Your task to perform on an android device: toggle data saver in the chrome app Image 0: 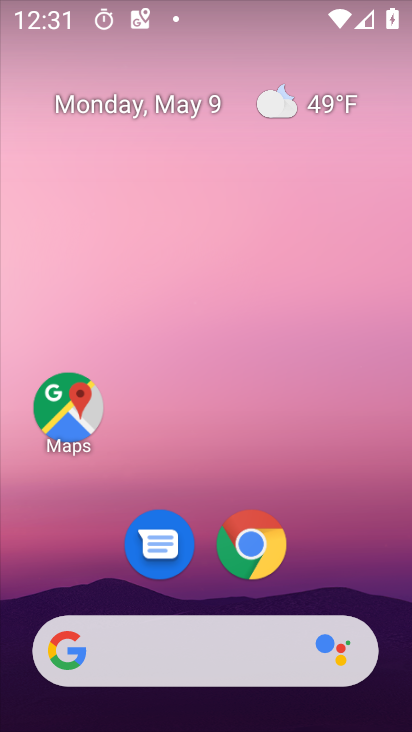
Step 0: drag from (324, 532) to (339, 4)
Your task to perform on an android device: toggle data saver in the chrome app Image 1: 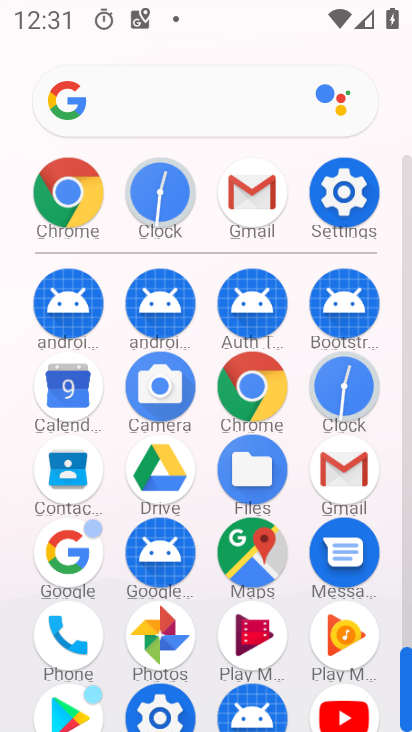
Step 1: click (261, 394)
Your task to perform on an android device: toggle data saver in the chrome app Image 2: 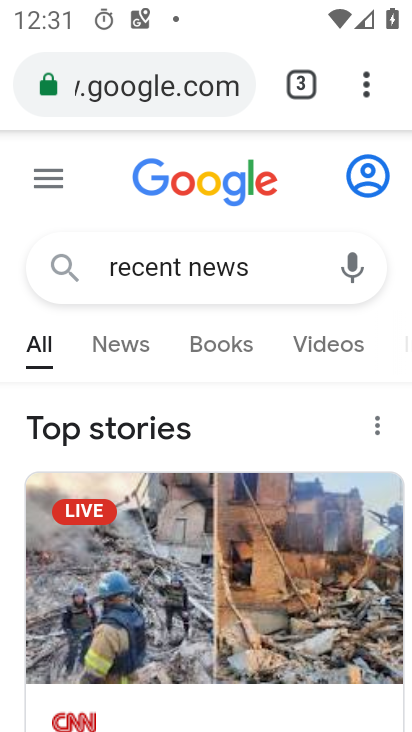
Step 2: click (364, 82)
Your task to perform on an android device: toggle data saver in the chrome app Image 3: 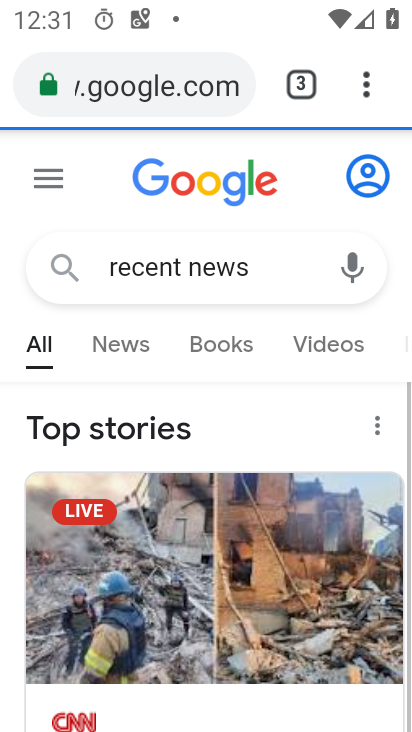
Step 3: drag from (371, 87) to (138, 603)
Your task to perform on an android device: toggle data saver in the chrome app Image 4: 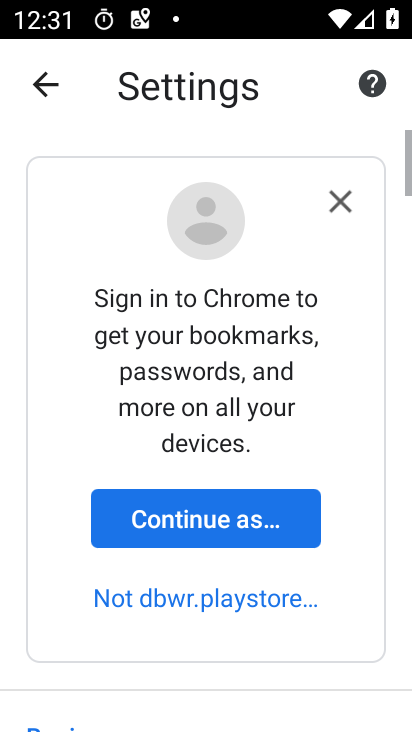
Step 4: drag from (220, 626) to (208, 65)
Your task to perform on an android device: toggle data saver in the chrome app Image 5: 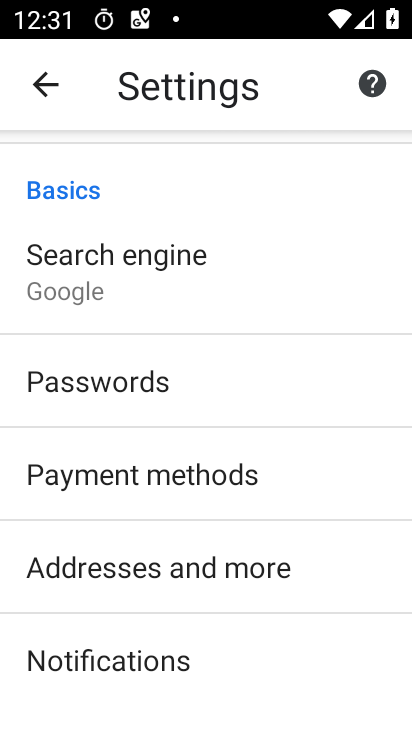
Step 5: drag from (193, 702) to (220, 147)
Your task to perform on an android device: toggle data saver in the chrome app Image 6: 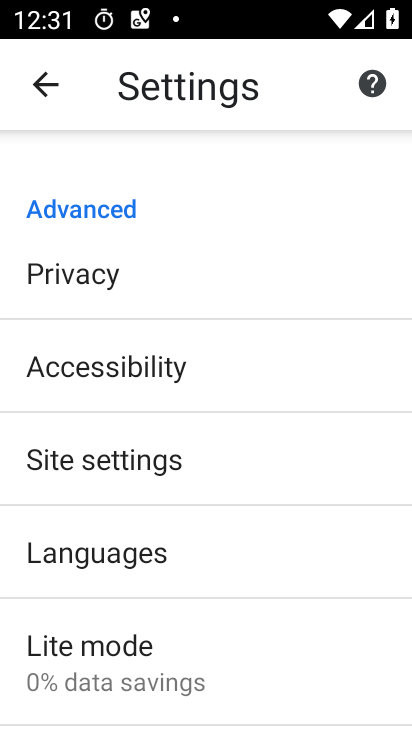
Step 6: click (161, 659)
Your task to perform on an android device: toggle data saver in the chrome app Image 7: 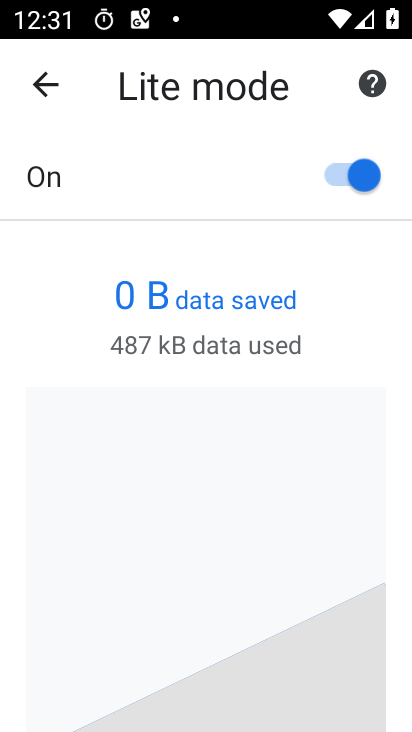
Step 7: click (344, 175)
Your task to perform on an android device: toggle data saver in the chrome app Image 8: 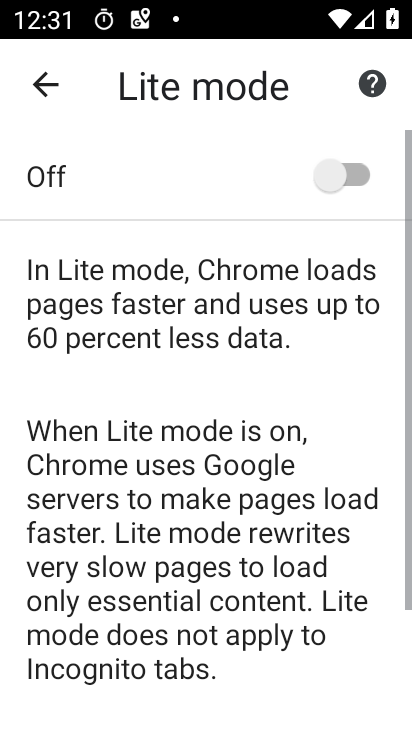
Step 8: task complete